Your task to perform on an android device: Go to battery settings Image 0: 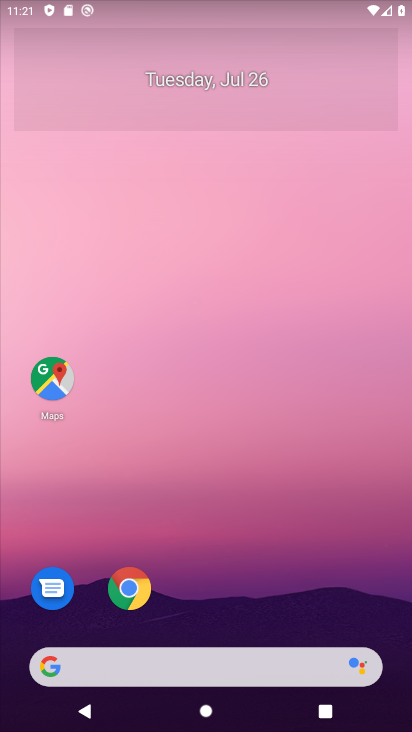
Step 0: drag from (46, 702) to (248, 141)
Your task to perform on an android device: Go to battery settings Image 1: 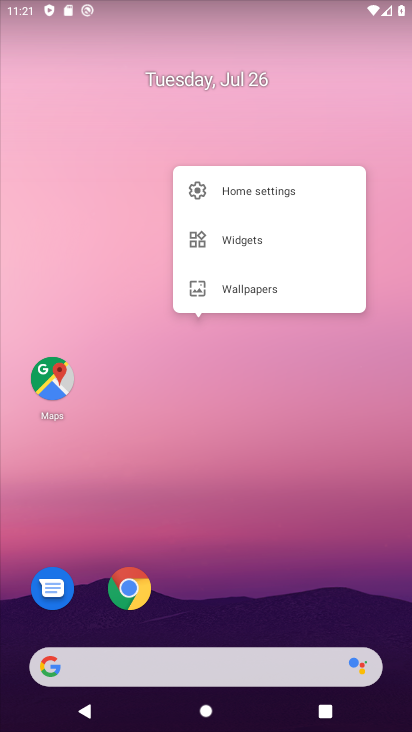
Step 1: drag from (11, 692) to (177, 0)
Your task to perform on an android device: Go to battery settings Image 2: 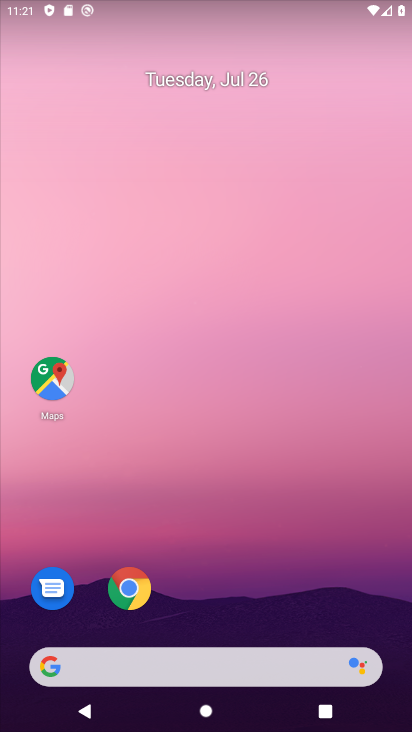
Step 2: drag from (40, 618) to (151, 64)
Your task to perform on an android device: Go to battery settings Image 3: 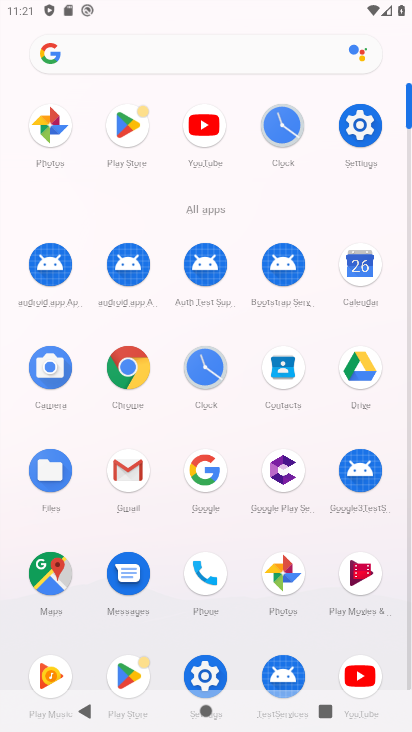
Step 3: click (200, 681)
Your task to perform on an android device: Go to battery settings Image 4: 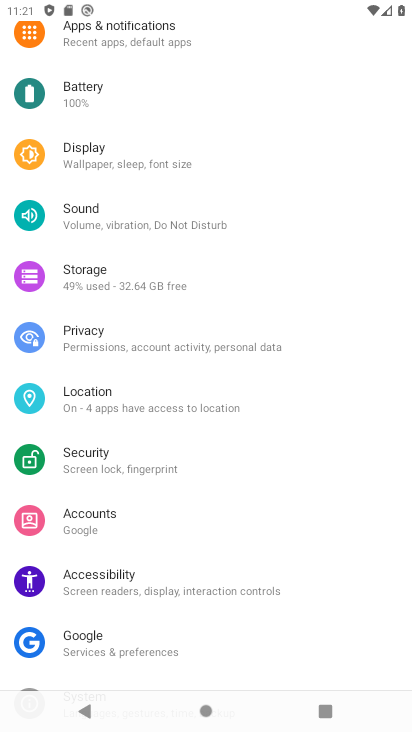
Step 4: click (97, 78)
Your task to perform on an android device: Go to battery settings Image 5: 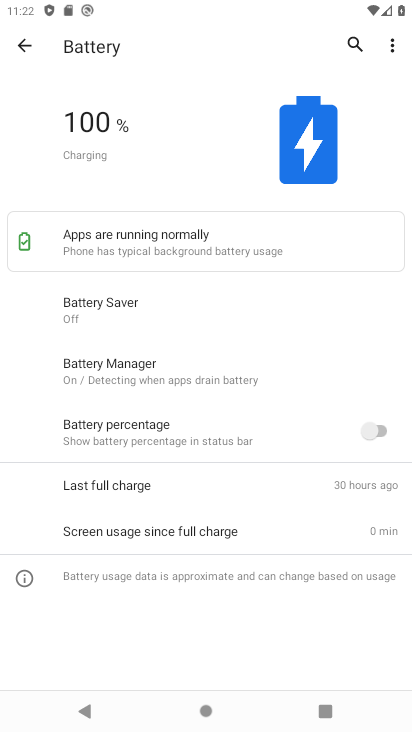
Step 5: task complete